Your task to perform on an android device: turn on improve location accuracy Image 0: 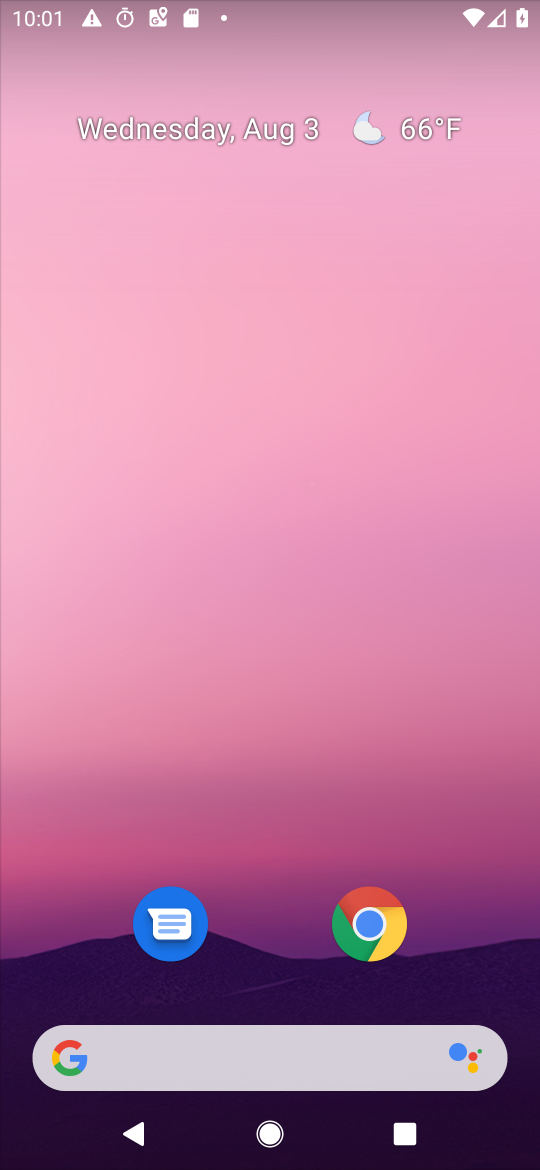
Step 0: press home button
Your task to perform on an android device: turn on improve location accuracy Image 1: 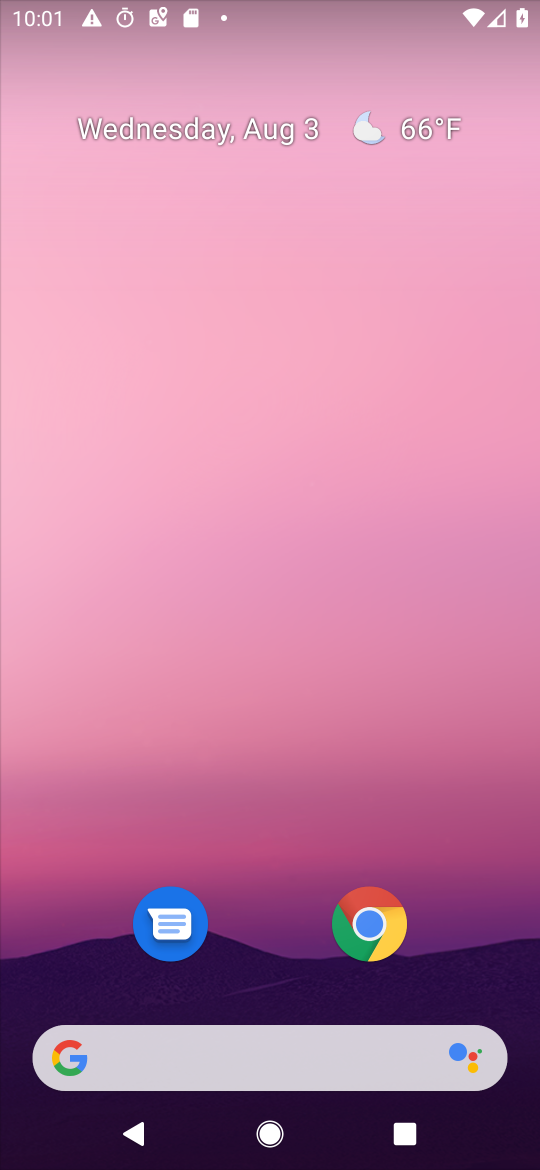
Step 1: drag from (270, 978) to (273, 100)
Your task to perform on an android device: turn on improve location accuracy Image 2: 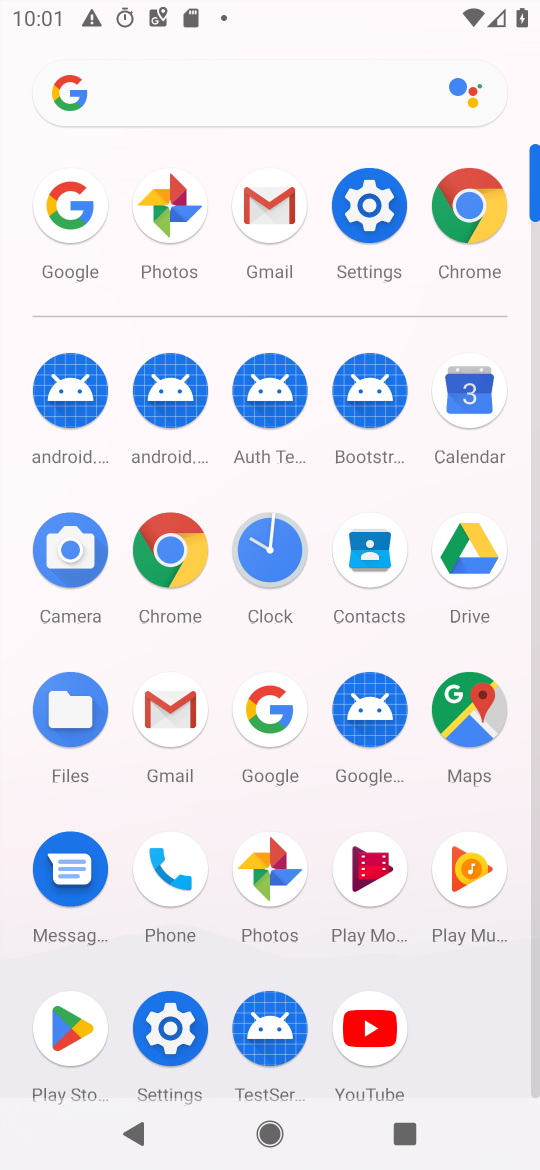
Step 2: click (358, 193)
Your task to perform on an android device: turn on improve location accuracy Image 3: 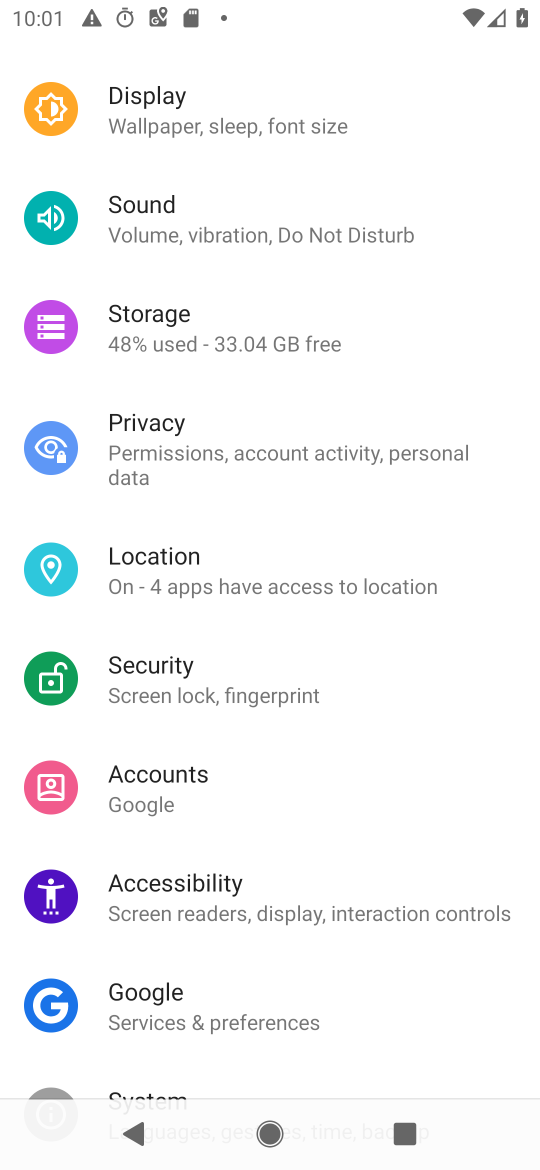
Step 3: click (233, 548)
Your task to perform on an android device: turn on improve location accuracy Image 4: 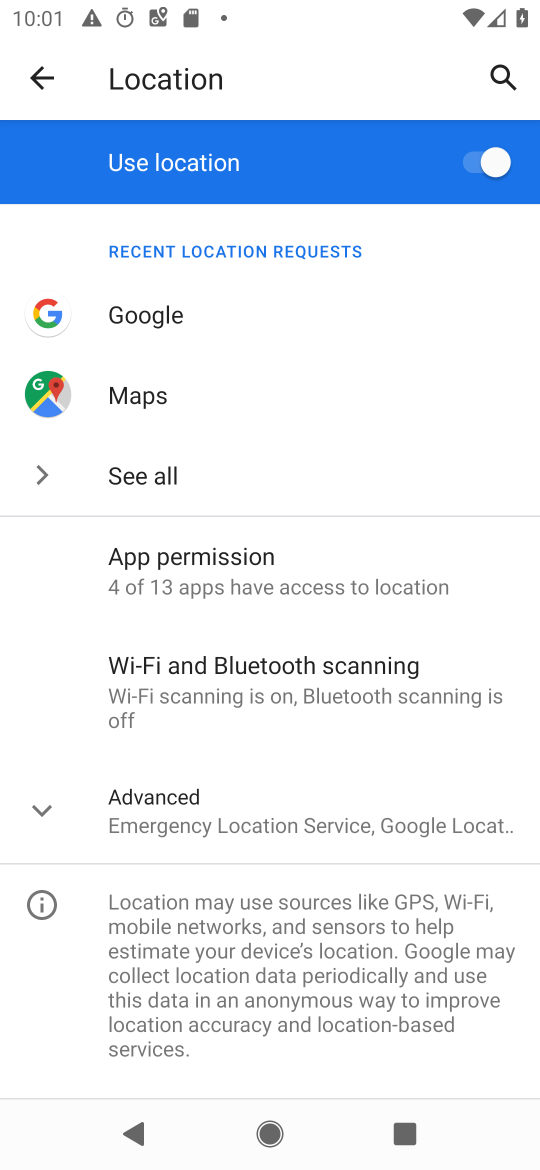
Step 4: click (51, 803)
Your task to perform on an android device: turn on improve location accuracy Image 5: 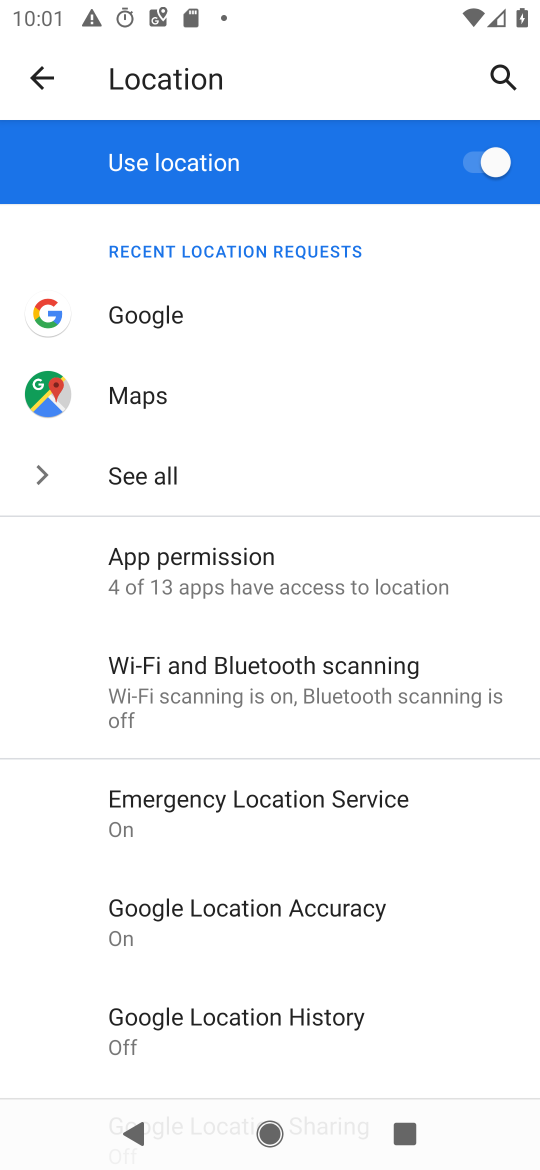
Step 5: click (237, 923)
Your task to perform on an android device: turn on improve location accuracy Image 6: 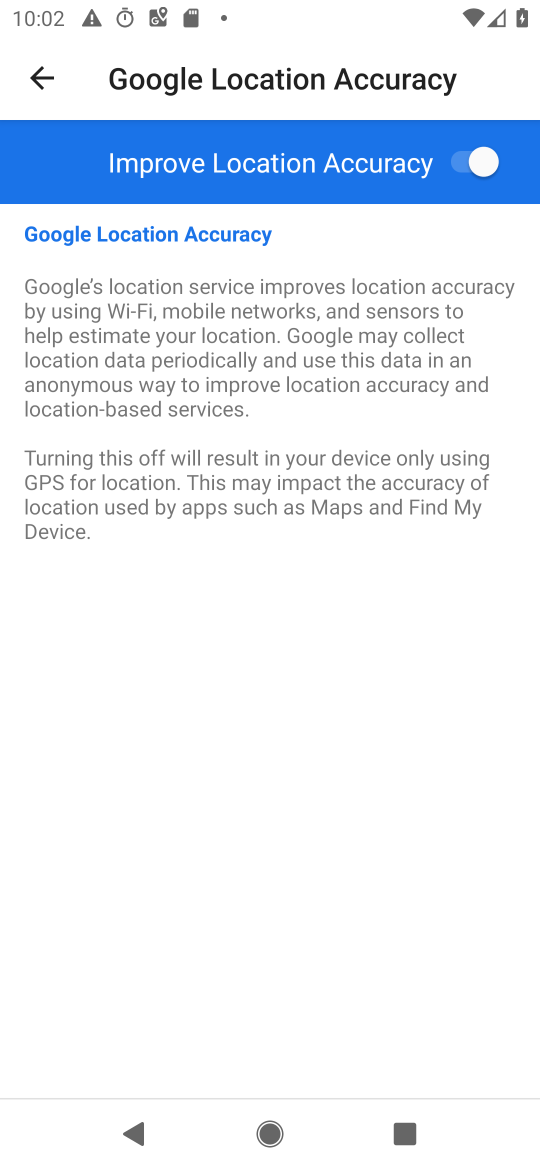
Step 6: task complete